Your task to perform on an android device: choose inbox layout in the gmail app Image 0: 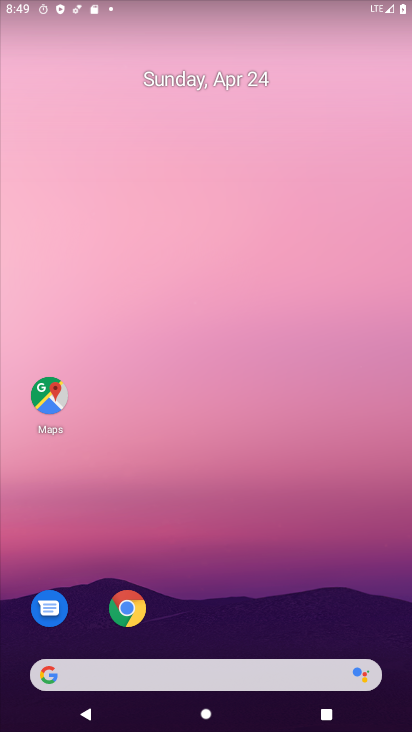
Step 0: drag from (231, 569) to (238, 3)
Your task to perform on an android device: choose inbox layout in the gmail app Image 1: 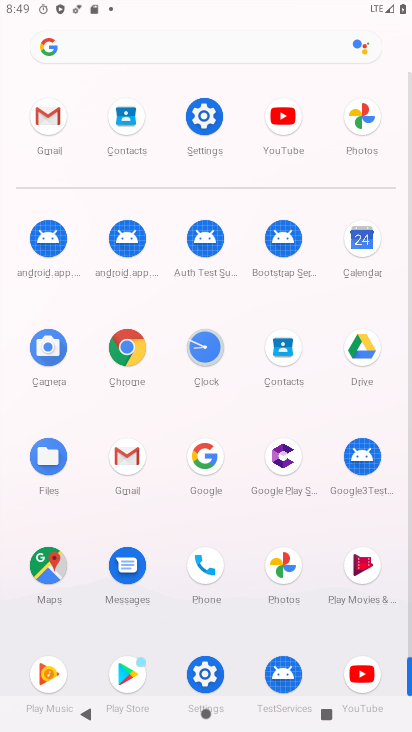
Step 1: click (45, 115)
Your task to perform on an android device: choose inbox layout in the gmail app Image 2: 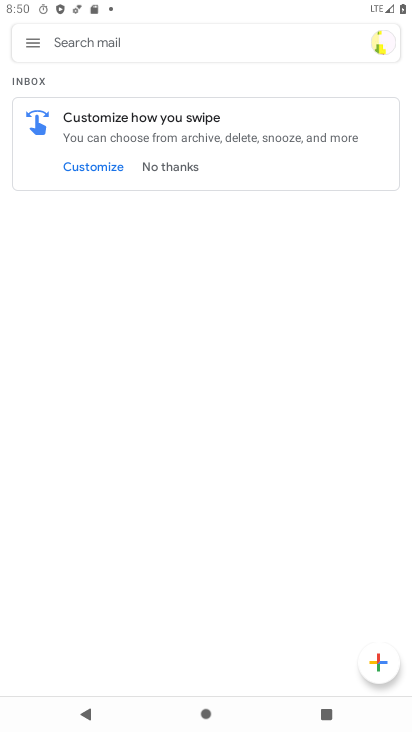
Step 2: click (37, 37)
Your task to perform on an android device: choose inbox layout in the gmail app Image 3: 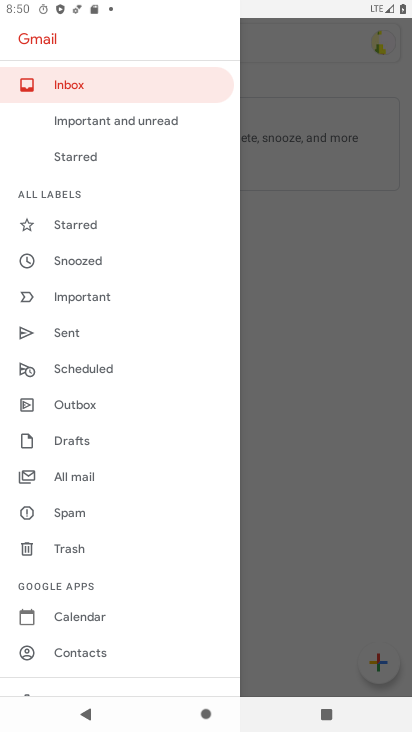
Step 3: drag from (145, 640) to (194, 671)
Your task to perform on an android device: choose inbox layout in the gmail app Image 4: 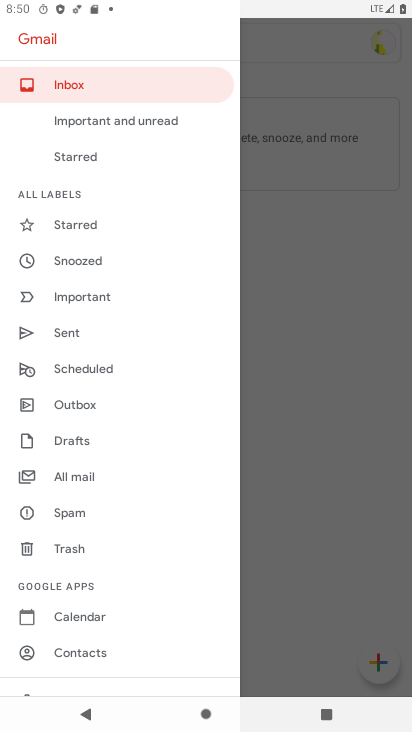
Step 4: drag from (191, 467) to (143, 383)
Your task to perform on an android device: choose inbox layout in the gmail app Image 5: 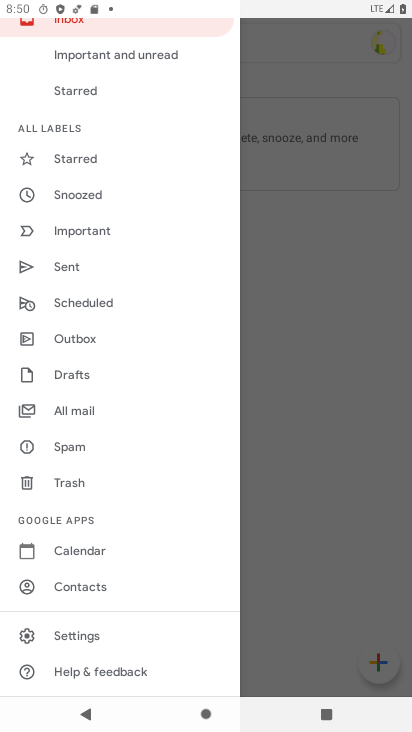
Step 5: click (100, 628)
Your task to perform on an android device: choose inbox layout in the gmail app Image 6: 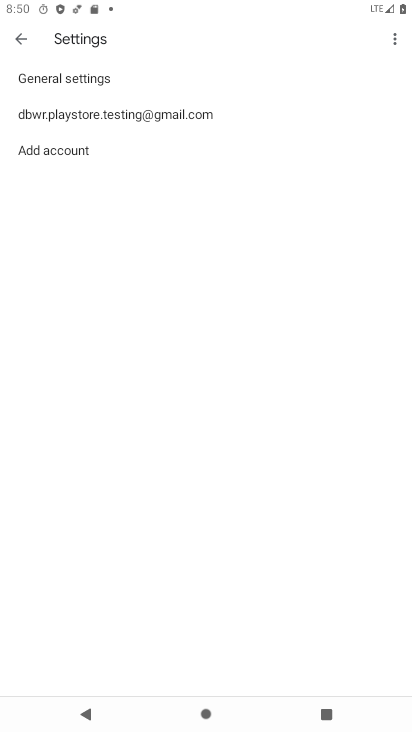
Step 6: click (151, 111)
Your task to perform on an android device: choose inbox layout in the gmail app Image 7: 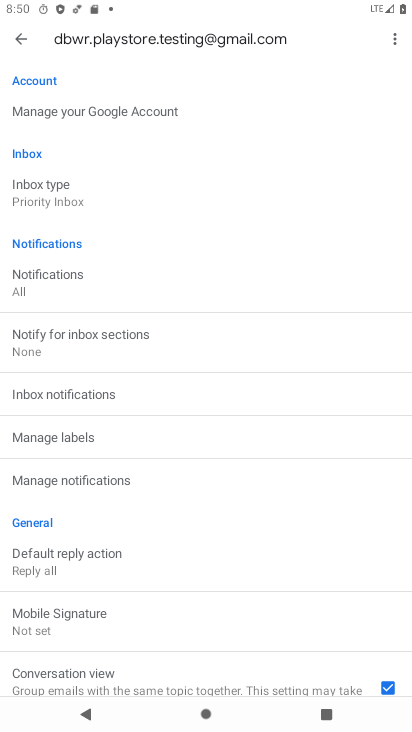
Step 7: click (81, 185)
Your task to perform on an android device: choose inbox layout in the gmail app Image 8: 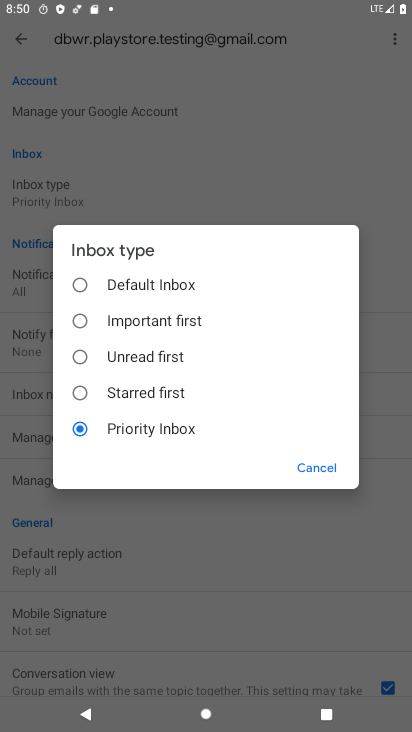
Step 8: click (81, 278)
Your task to perform on an android device: choose inbox layout in the gmail app Image 9: 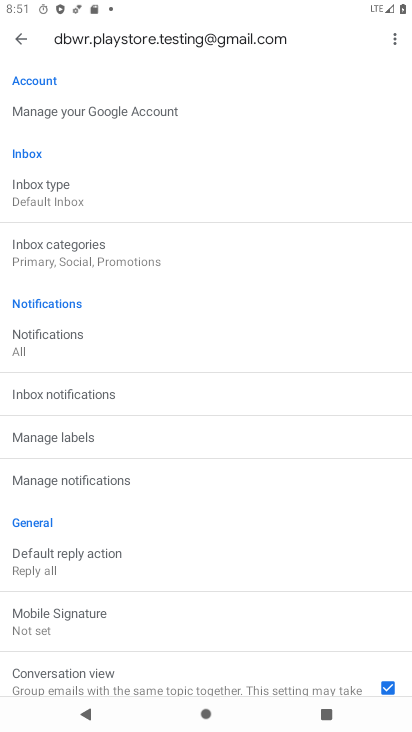
Step 9: task complete